Your task to perform on an android device: choose inbox layout in the gmail app Image 0: 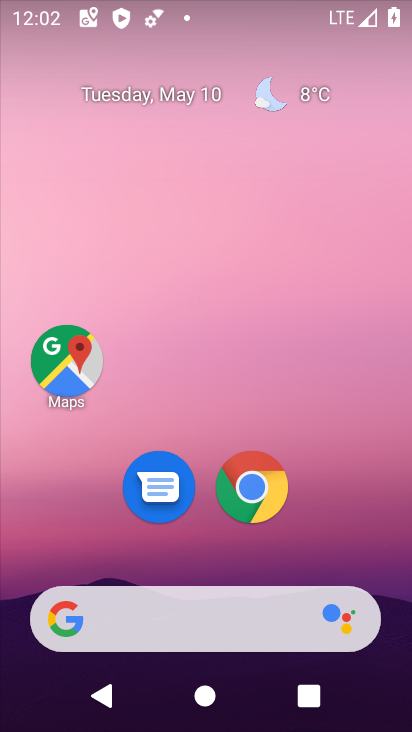
Step 0: drag from (201, 555) to (243, 128)
Your task to perform on an android device: choose inbox layout in the gmail app Image 1: 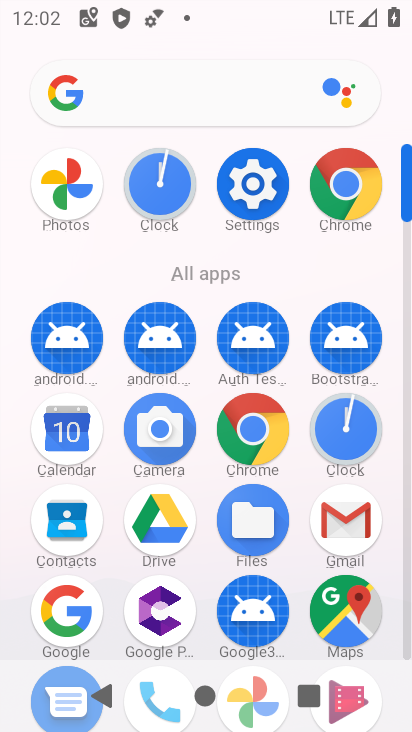
Step 1: click (339, 517)
Your task to perform on an android device: choose inbox layout in the gmail app Image 2: 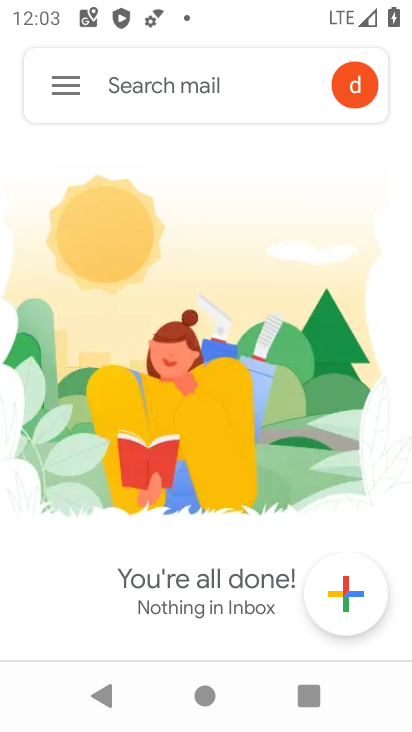
Step 2: click (66, 84)
Your task to perform on an android device: choose inbox layout in the gmail app Image 3: 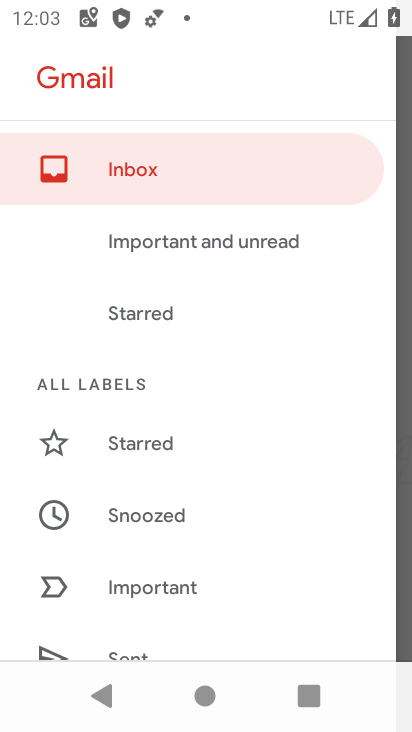
Step 3: drag from (205, 569) to (212, 121)
Your task to perform on an android device: choose inbox layout in the gmail app Image 4: 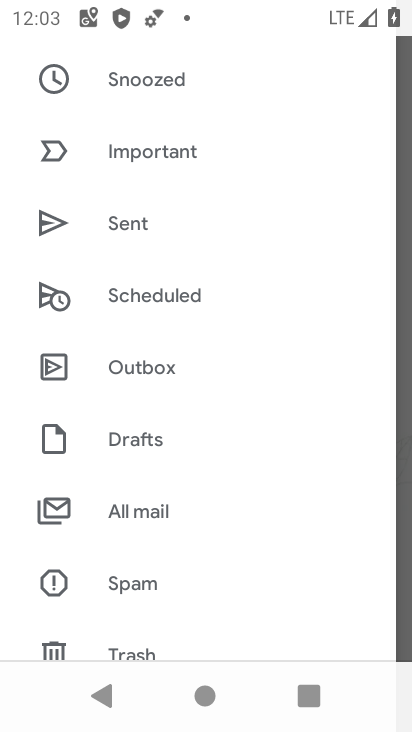
Step 4: drag from (181, 609) to (220, 93)
Your task to perform on an android device: choose inbox layout in the gmail app Image 5: 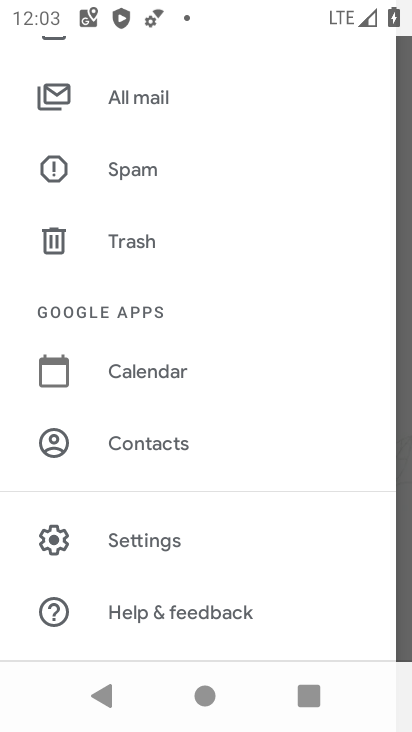
Step 5: click (197, 539)
Your task to perform on an android device: choose inbox layout in the gmail app Image 6: 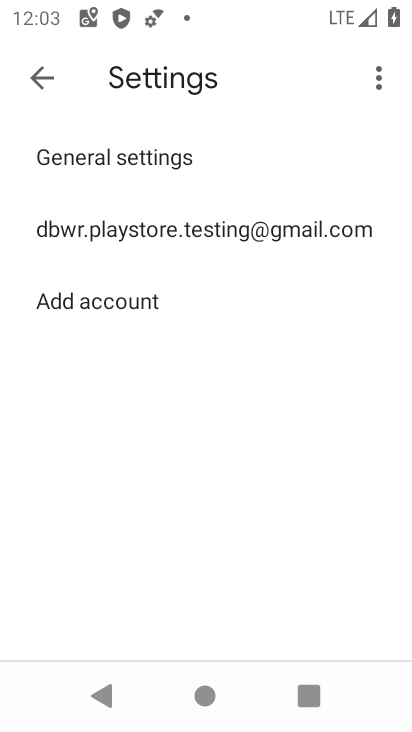
Step 6: click (255, 219)
Your task to perform on an android device: choose inbox layout in the gmail app Image 7: 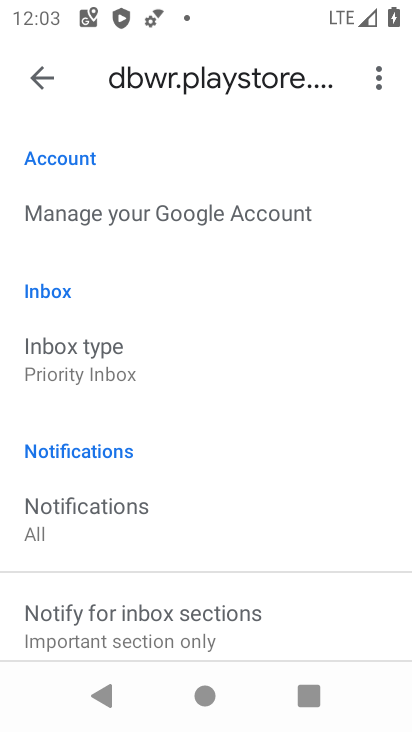
Step 7: click (145, 357)
Your task to perform on an android device: choose inbox layout in the gmail app Image 8: 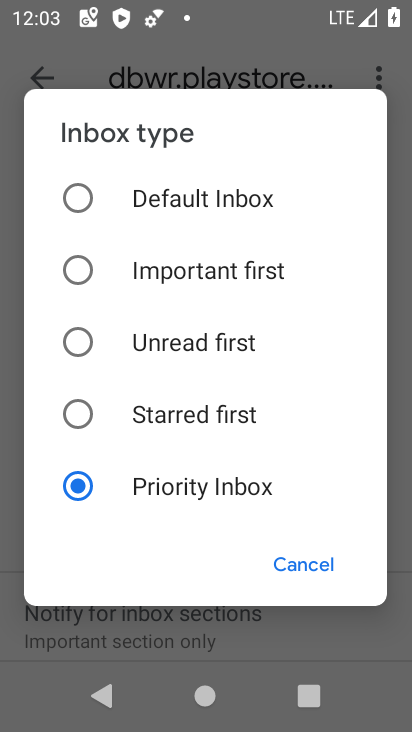
Step 8: click (76, 198)
Your task to perform on an android device: choose inbox layout in the gmail app Image 9: 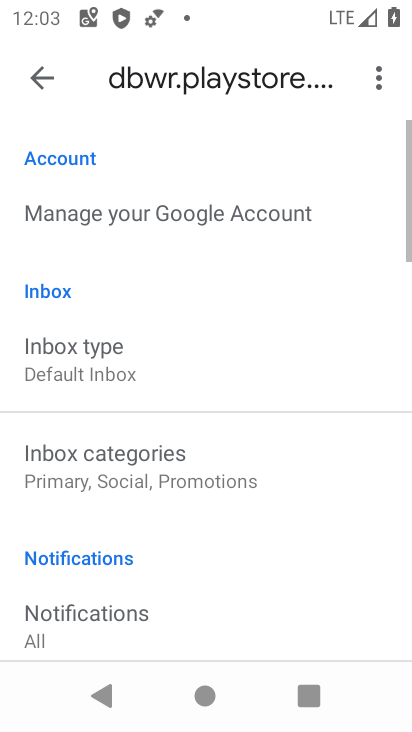
Step 9: task complete